Your task to perform on an android device: Open my contact list Image 0: 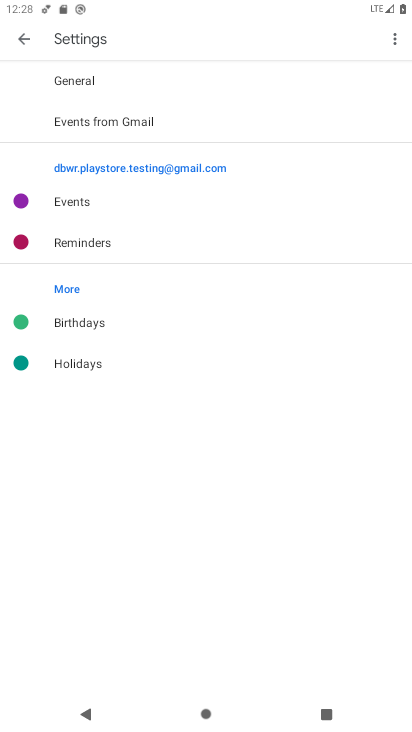
Step 0: press home button
Your task to perform on an android device: Open my contact list Image 1: 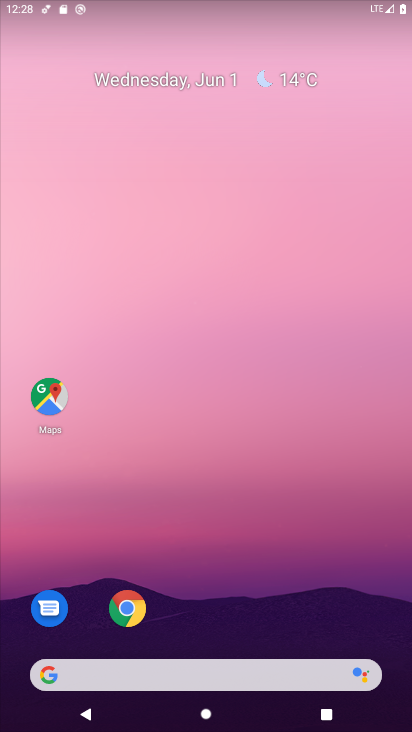
Step 1: drag from (203, 632) to (261, 152)
Your task to perform on an android device: Open my contact list Image 2: 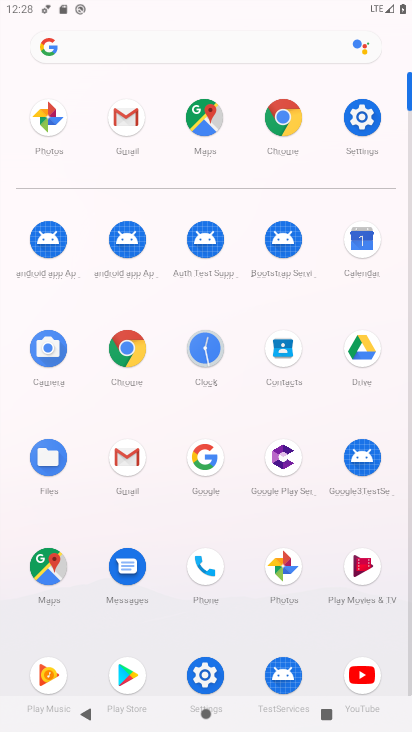
Step 2: click (279, 357)
Your task to perform on an android device: Open my contact list Image 3: 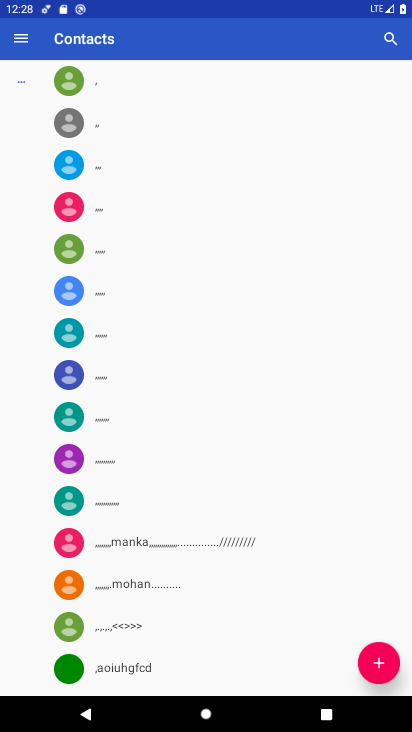
Step 3: task complete